Your task to perform on an android device: Go to Google maps Image 0: 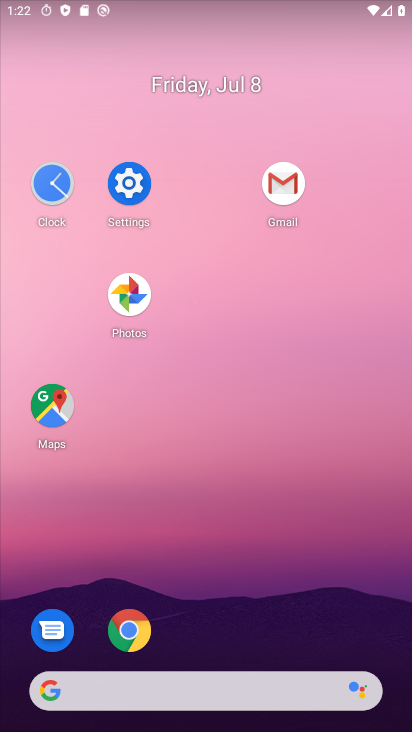
Step 0: click (60, 406)
Your task to perform on an android device: Go to Google maps Image 1: 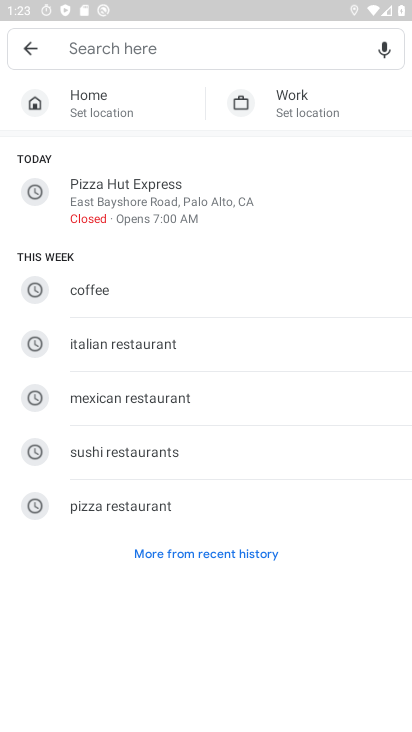
Step 1: task complete